Your task to perform on an android device: open app "Venmo" (install if not already installed) Image 0: 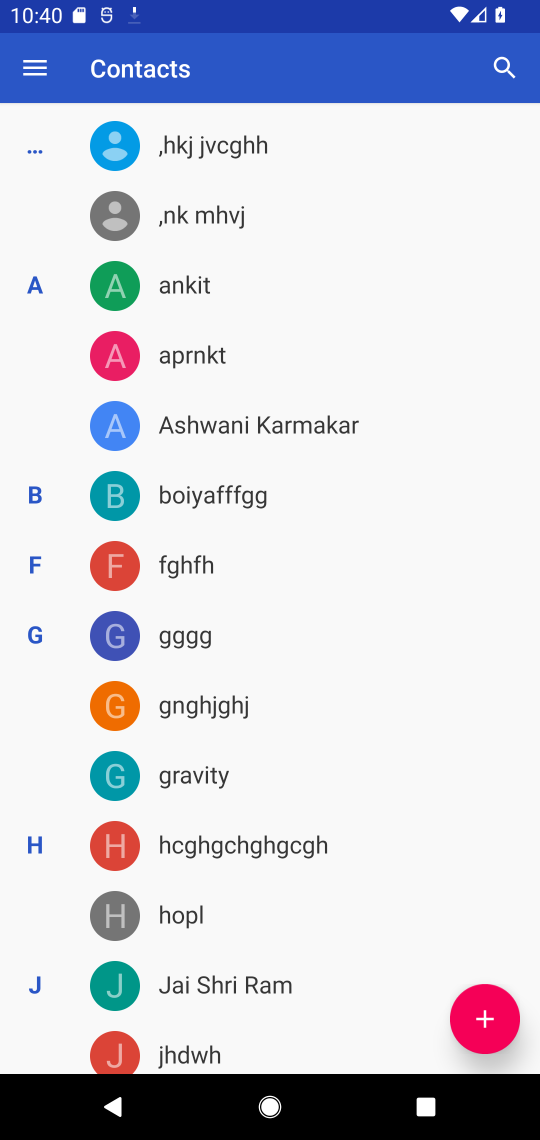
Step 0: press home button
Your task to perform on an android device: open app "Venmo" (install if not already installed) Image 1: 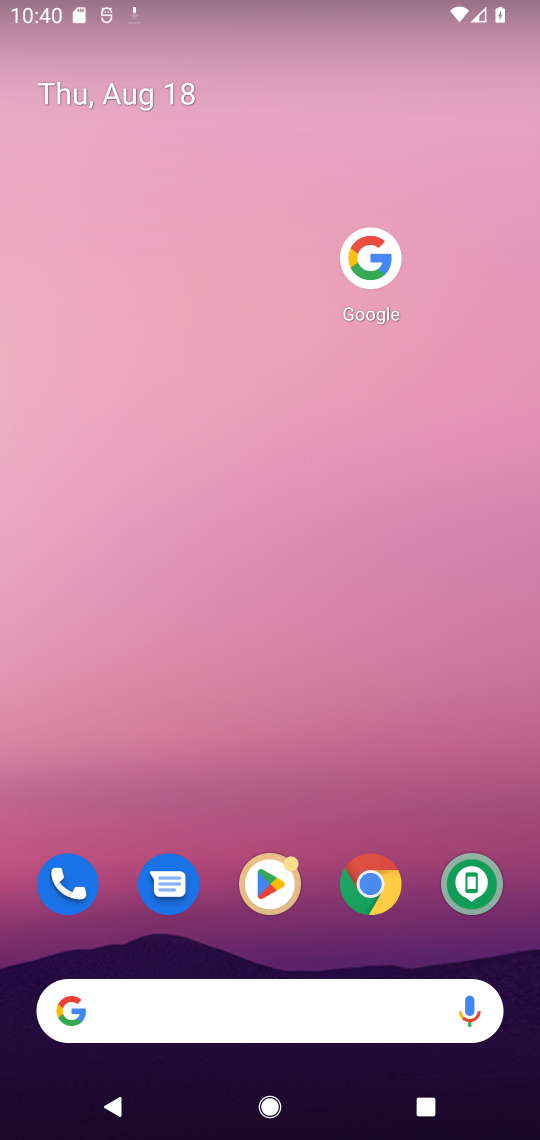
Step 1: click (283, 887)
Your task to perform on an android device: open app "Venmo" (install if not already installed) Image 2: 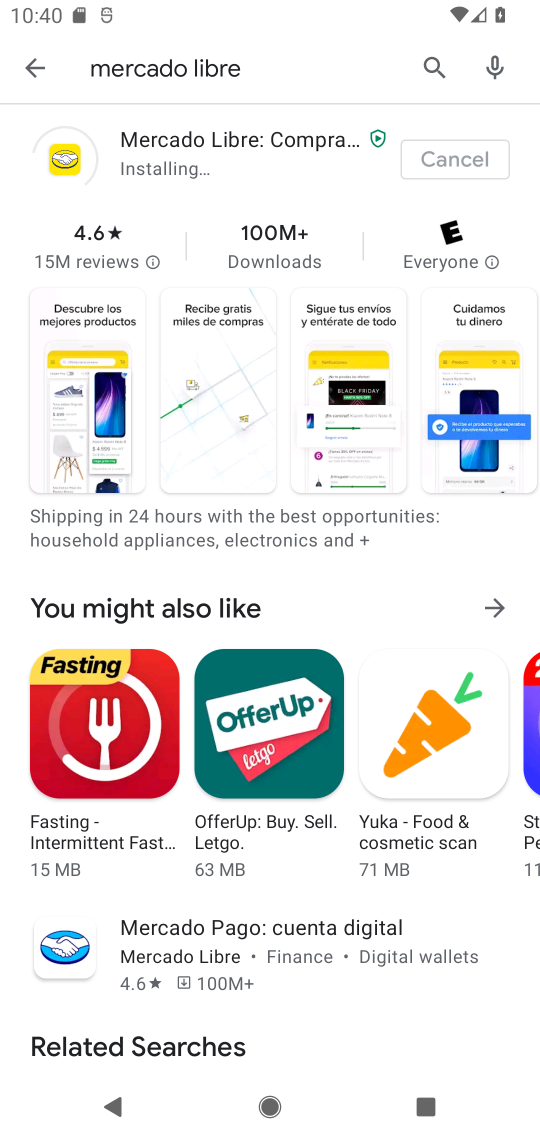
Step 2: click (436, 67)
Your task to perform on an android device: open app "Venmo" (install if not already installed) Image 3: 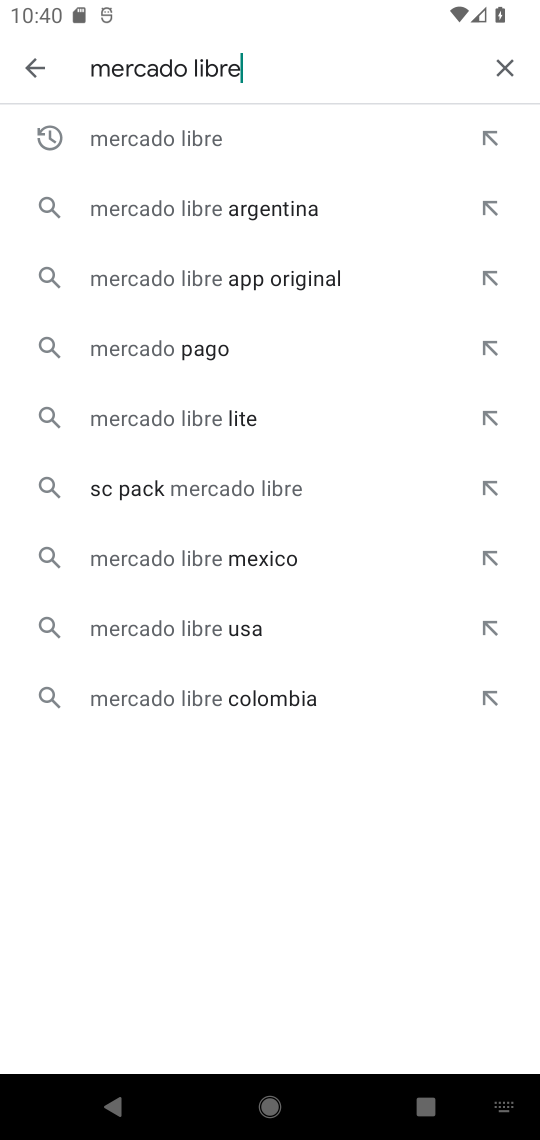
Step 3: click (497, 67)
Your task to perform on an android device: open app "Venmo" (install if not already installed) Image 4: 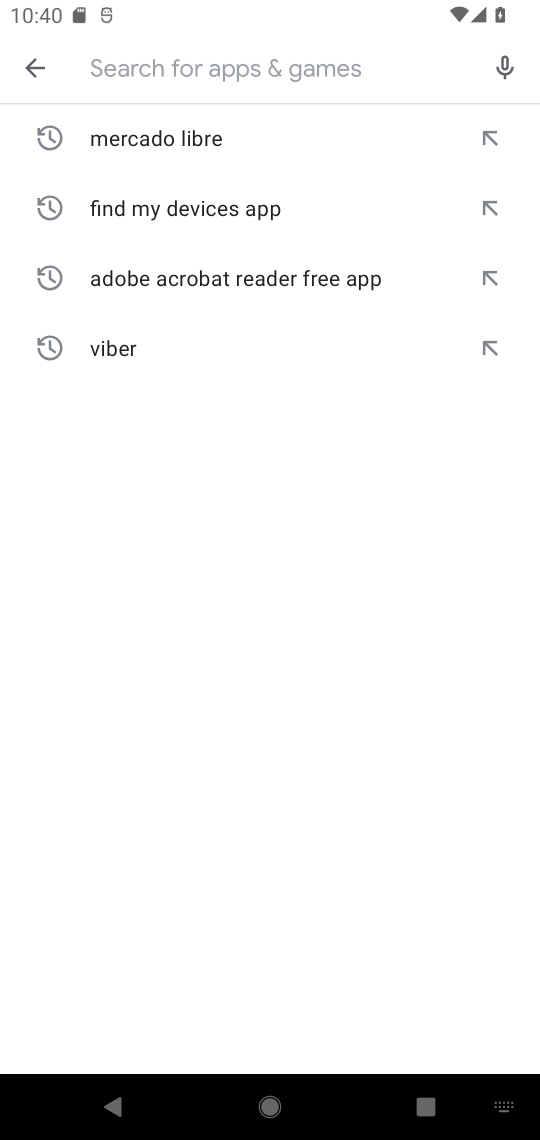
Step 4: type "venmo"
Your task to perform on an android device: open app "Venmo" (install if not already installed) Image 5: 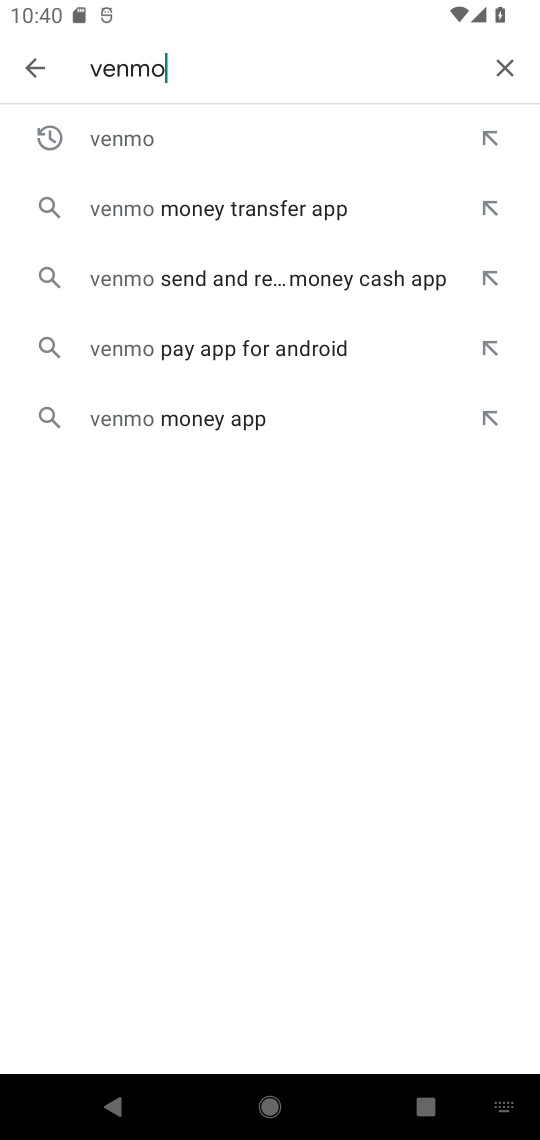
Step 5: click (195, 160)
Your task to perform on an android device: open app "Venmo" (install if not already installed) Image 6: 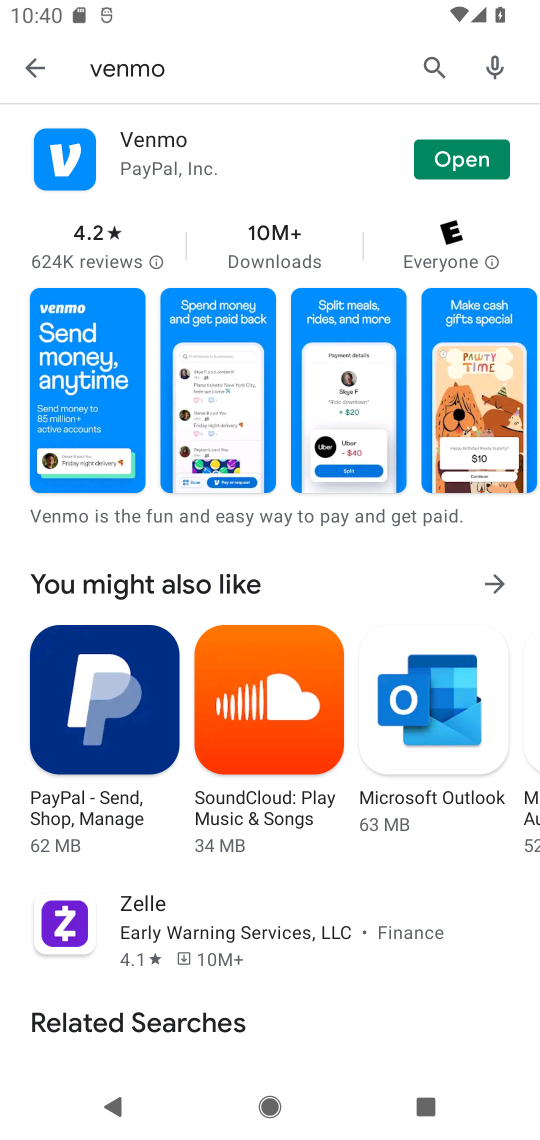
Step 6: click (443, 171)
Your task to perform on an android device: open app "Venmo" (install if not already installed) Image 7: 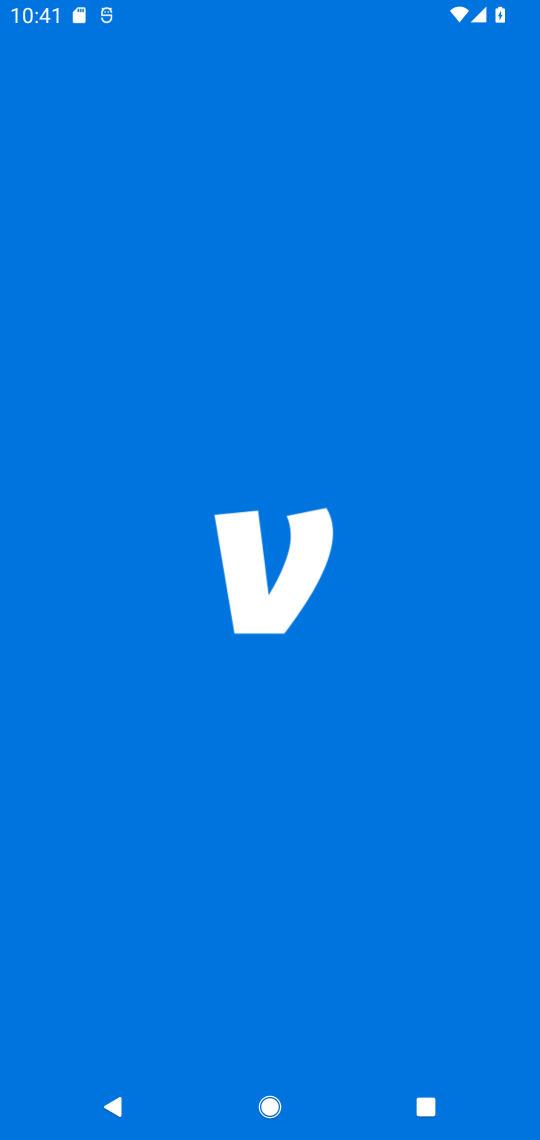
Step 7: task complete